Your task to perform on an android device: change alarm snooze length Image 0: 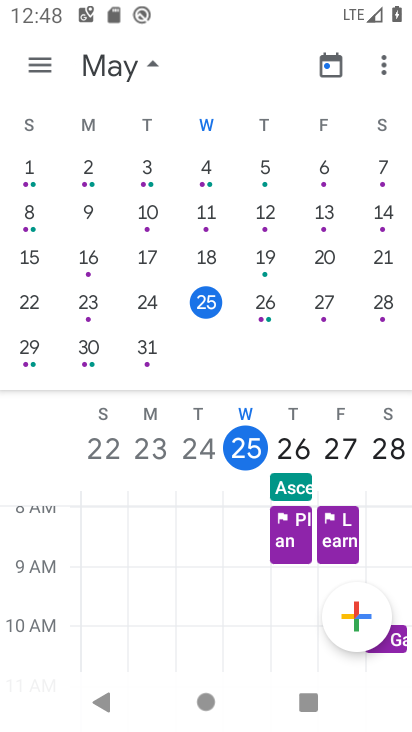
Step 0: press home button
Your task to perform on an android device: change alarm snooze length Image 1: 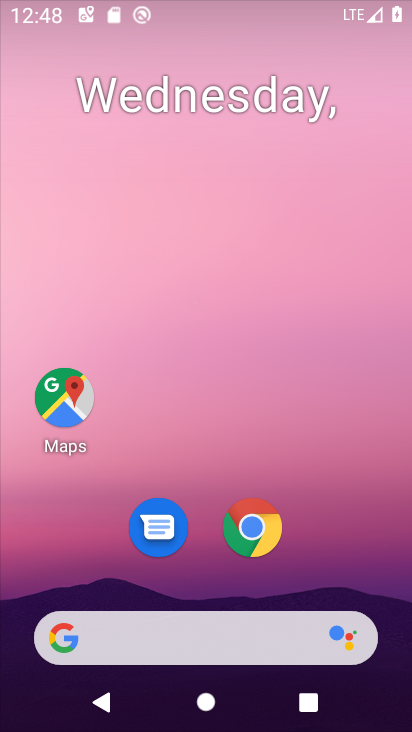
Step 1: drag from (307, 662) to (389, 110)
Your task to perform on an android device: change alarm snooze length Image 2: 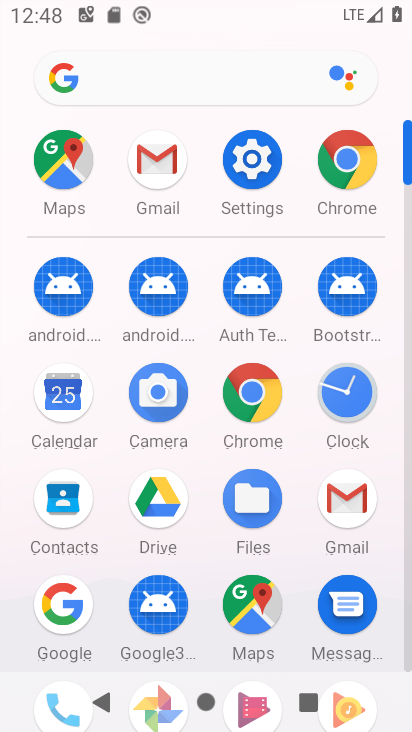
Step 2: click (332, 385)
Your task to perform on an android device: change alarm snooze length Image 3: 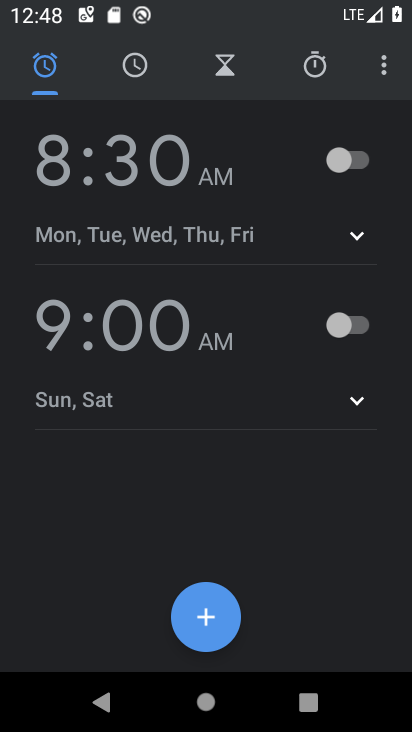
Step 3: click (369, 64)
Your task to perform on an android device: change alarm snooze length Image 4: 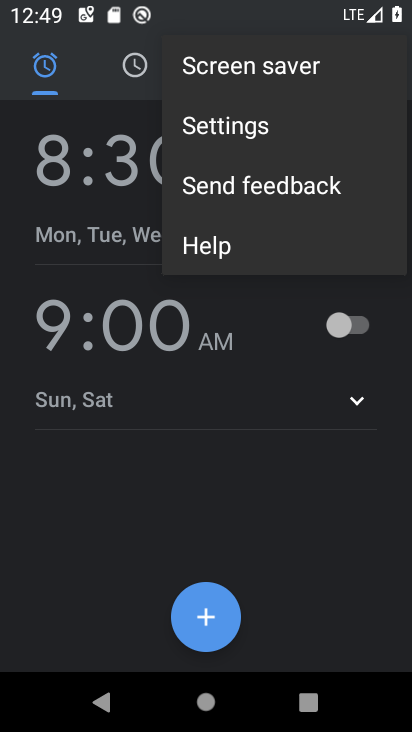
Step 4: click (270, 139)
Your task to perform on an android device: change alarm snooze length Image 5: 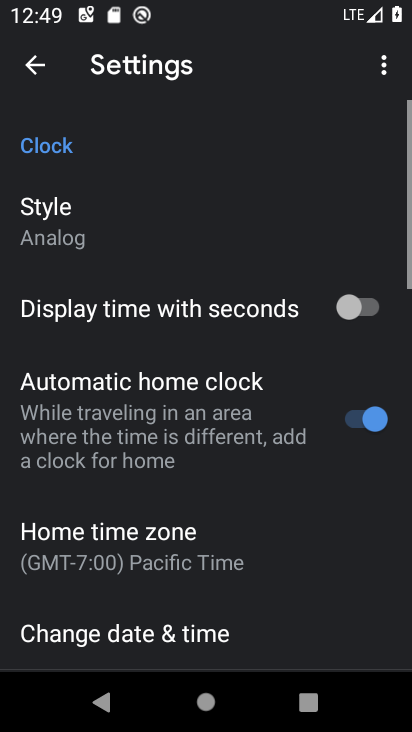
Step 5: drag from (255, 556) to (274, 0)
Your task to perform on an android device: change alarm snooze length Image 6: 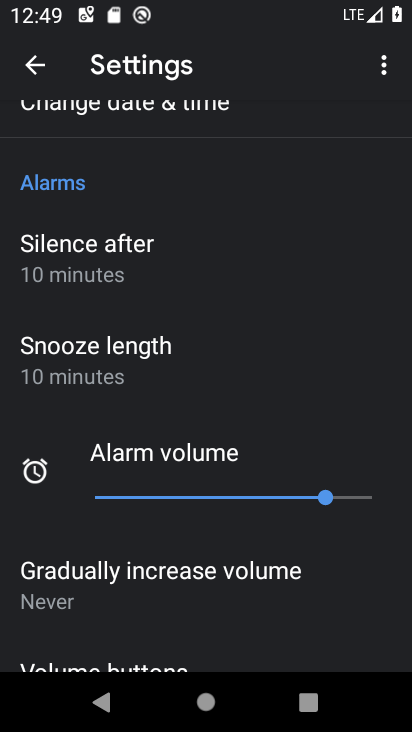
Step 6: click (129, 377)
Your task to perform on an android device: change alarm snooze length Image 7: 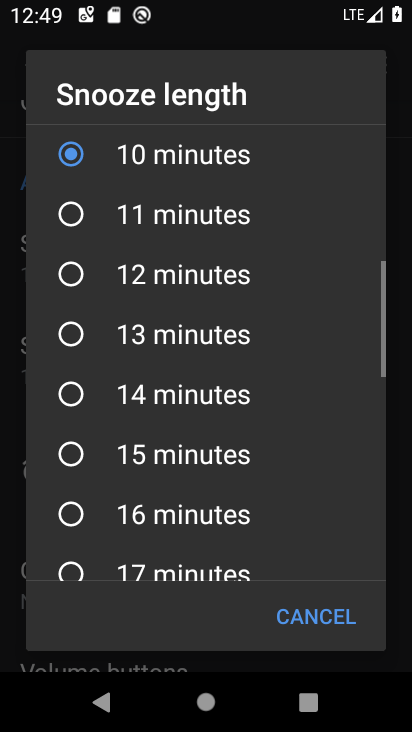
Step 7: click (74, 223)
Your task to perform on an android device: change alarm snooze length Image 8: 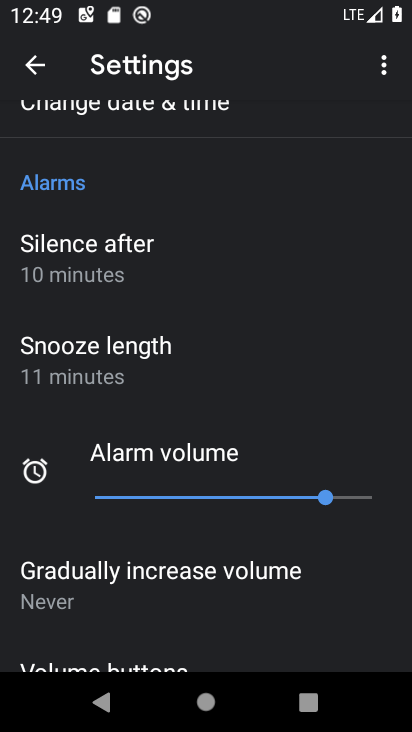
Step 8: task complete